Your task to perform on an android device: Open notification settings Image 0: 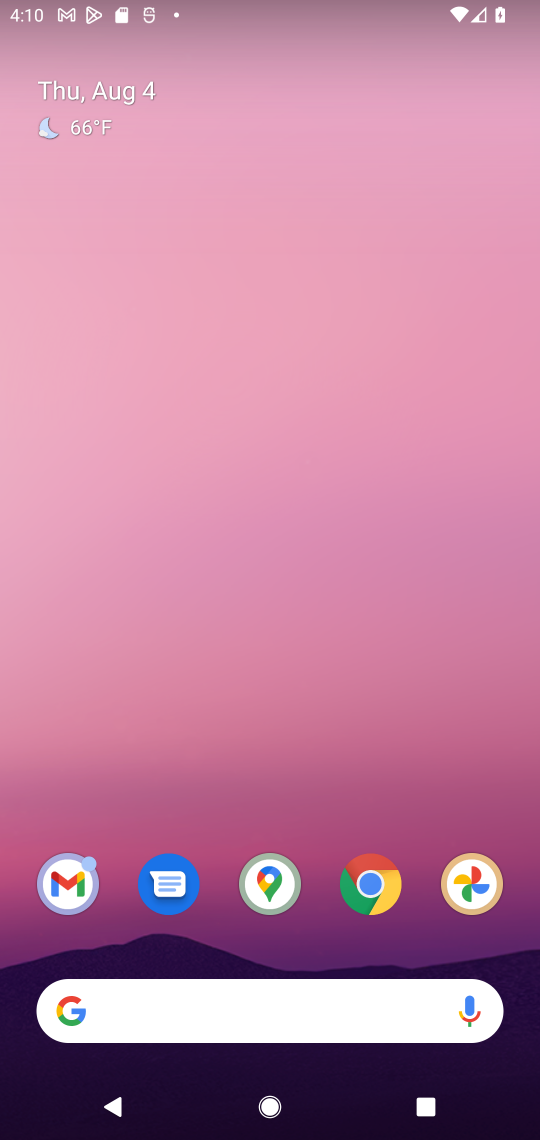
Step 0: drag from (316, 953) to (393, 211)
Your task to perform on an android device: Open notification settings Image 1: 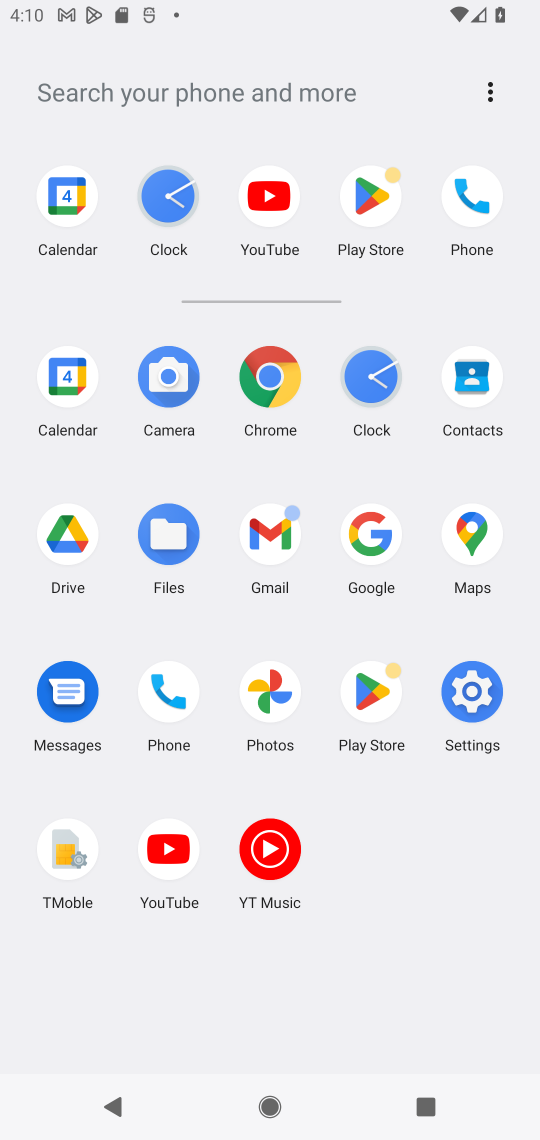
Step 1: click (451, 687)
Your task to perform on an android device: Open notification settings Image 2: 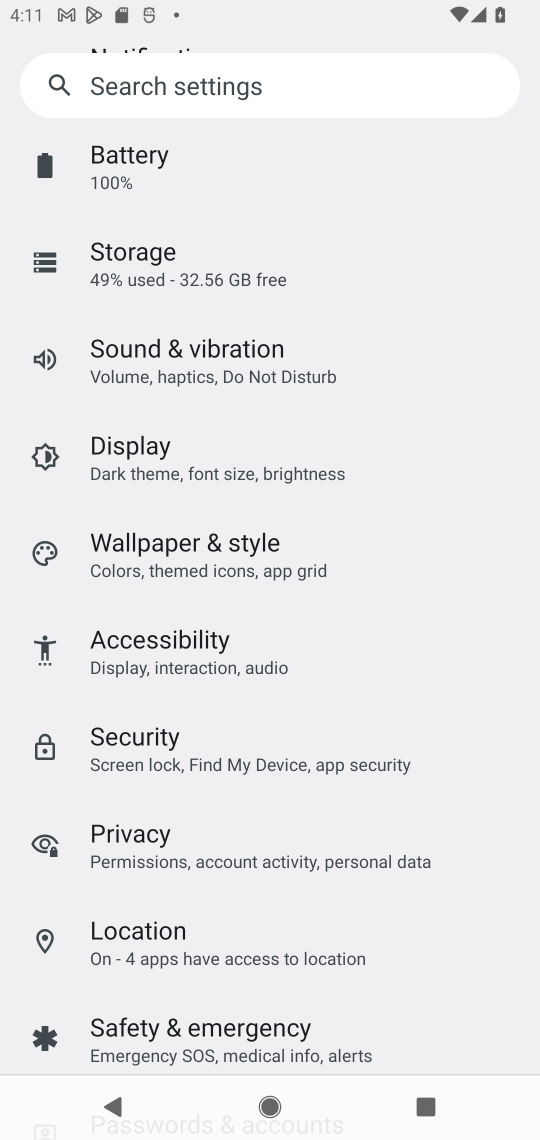
Step 2: drag from (281, 934) to (263, 394)
Your task to perform on an android device: Open notification settings Image 3: 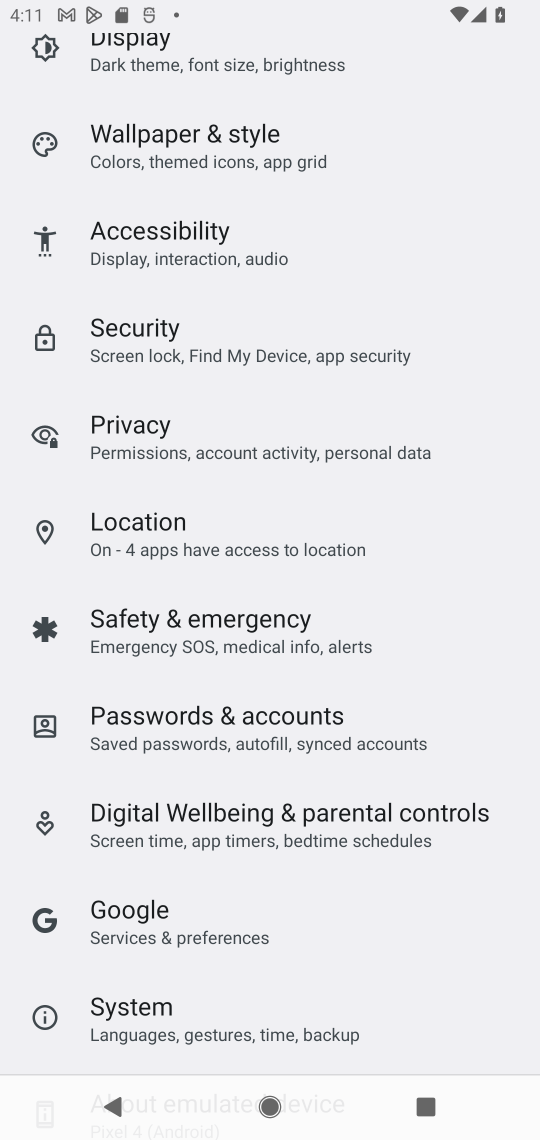
Step 3: drag from (263, 394) to (315, 872)
Your task to perform on an android device: Open notification settings Image 4: 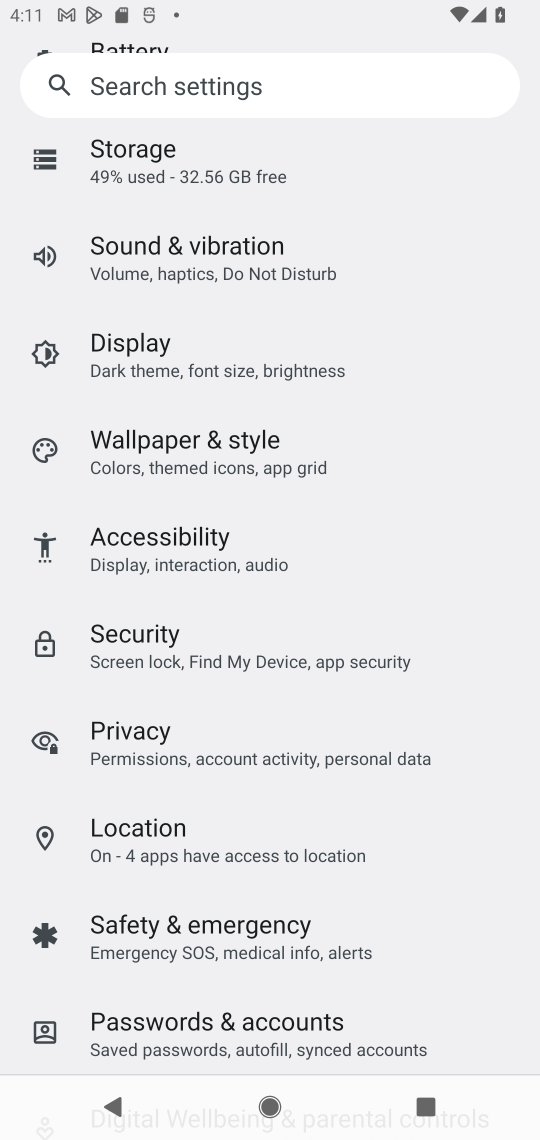
Step 4: drag from (262, 342) to (294, 786)
Your task to perform on an android device: Open notification settings Image 5: 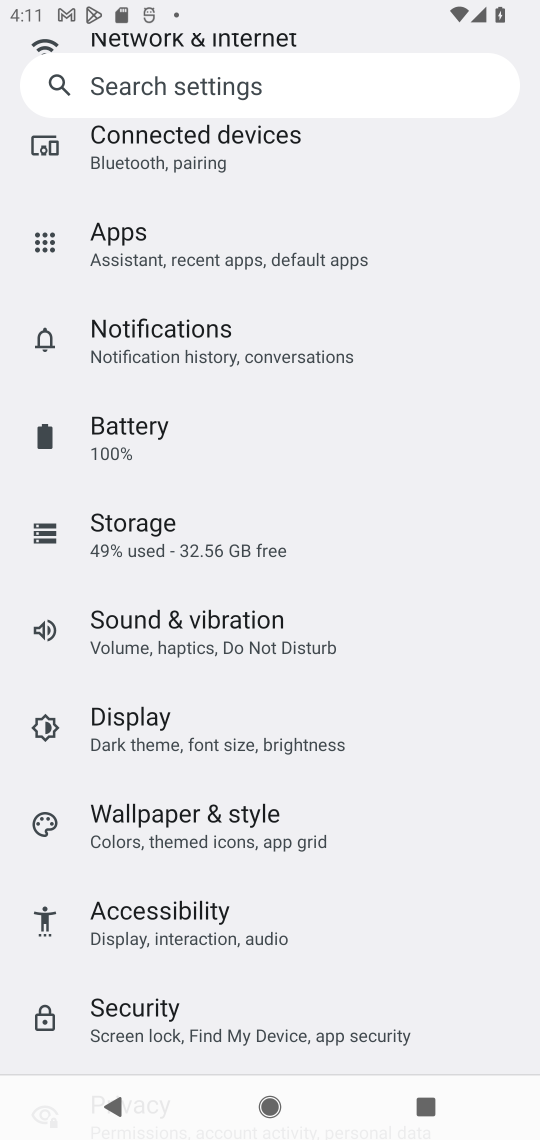
Step 5: drag from (238, 192) to (310, 704)
Your task to perform on an android device: Open notification settings Image 6: 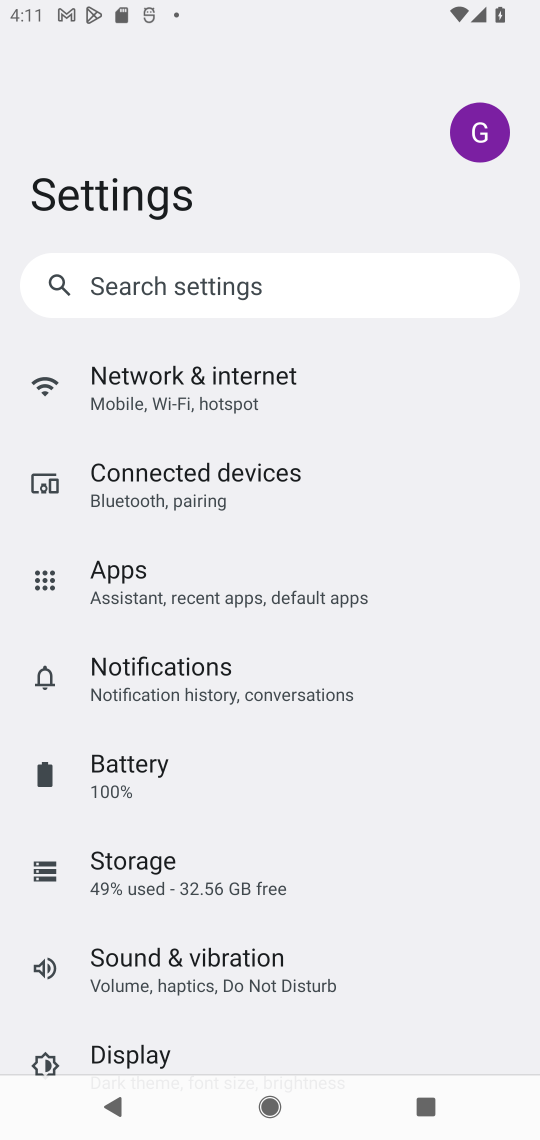
Step 6: click (304, 701)
Your task to perform on an android device: Open notification settings Image 7: 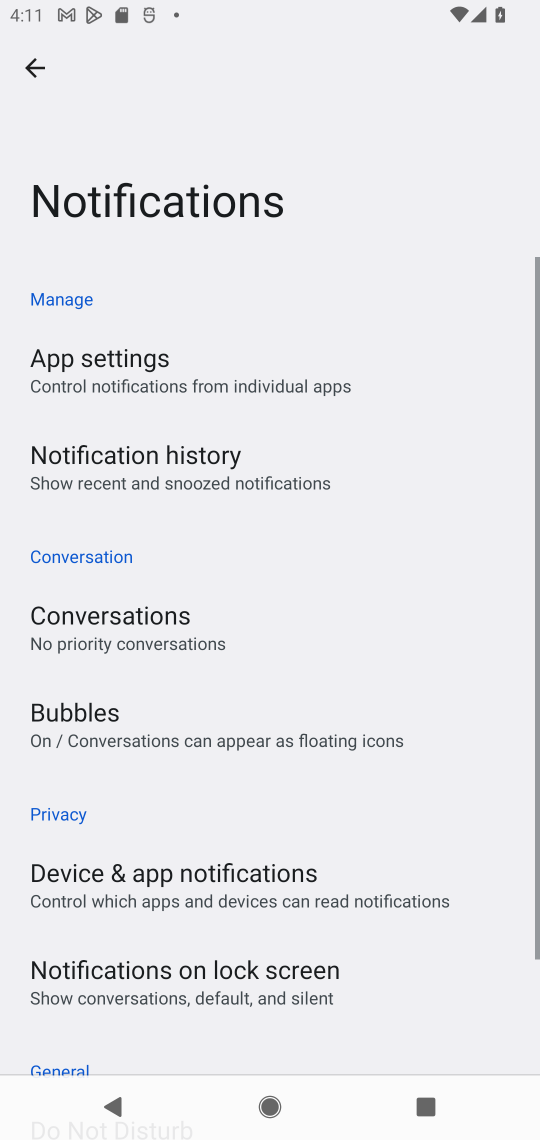
Step 7: task complete